Your task to perform on an android device: toggle wifi Image 0: 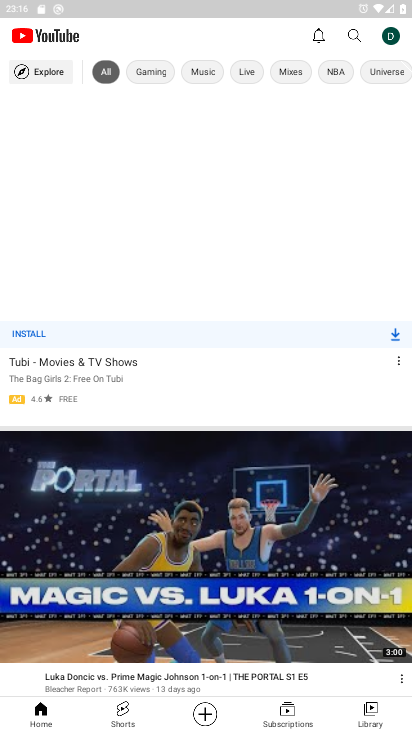
Step 0: press home button
Your task to perform on an android device: toggle wifi Image 1: 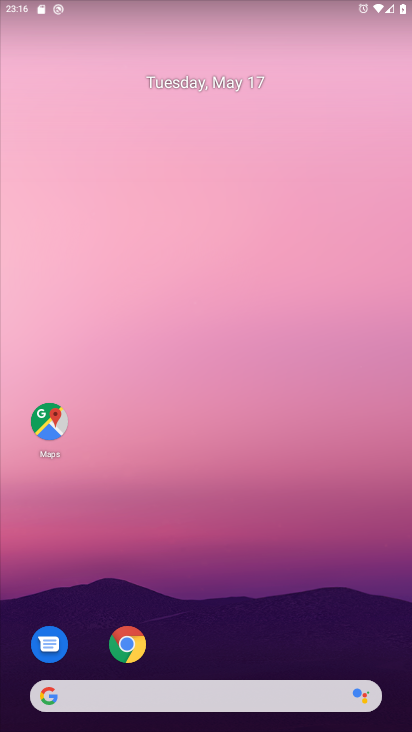
Step 1: drag from (224, 7) to (224, 565)
Your task to perform on an android device: toggle wifi Image 2: 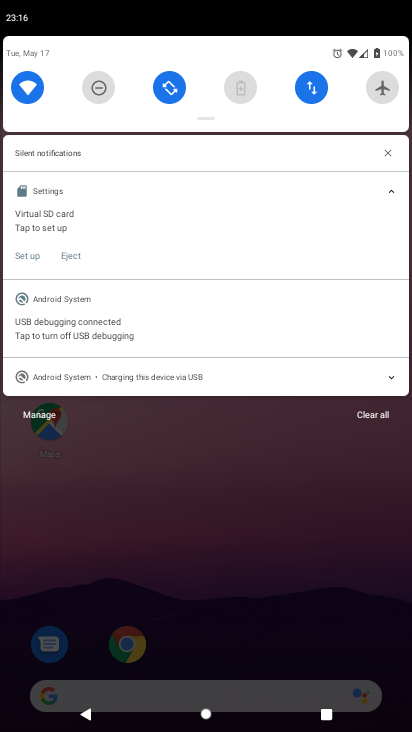
Step 2: click (20, 86)
Your task to perform on an android device: toggle wifi Image 3: 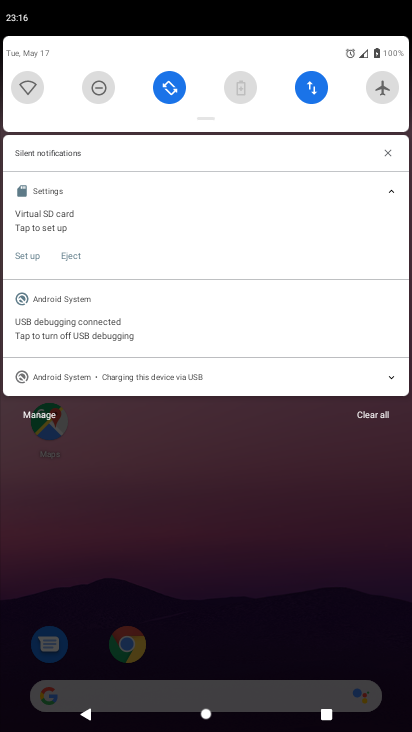
Step 3: task complete